Your task to perform on an android device: empty trash in the gmail app Image 0: 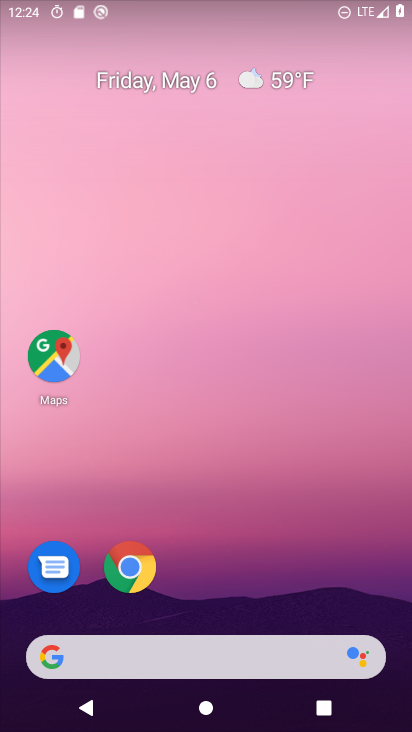
Step 0: drag from (333, 590) to (339, 2)
Your task to perform on an android device: empty trash in the gmail app Image 1: 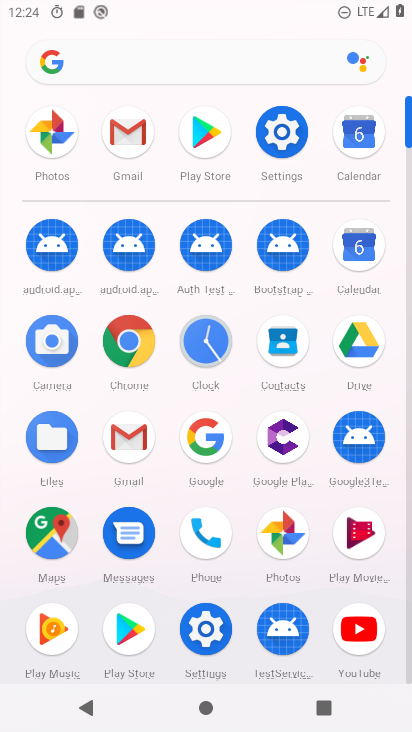
Step 1: click (127, 146)
Your task to perform on an android device: empty trash in the gmail app Image 2: 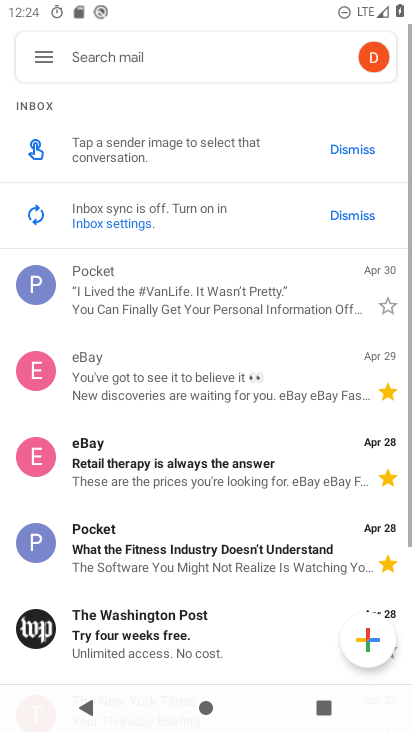
Step 2: click (39, 56)
Your task to perform on an android device: empty trash in the gmail app Image 3: 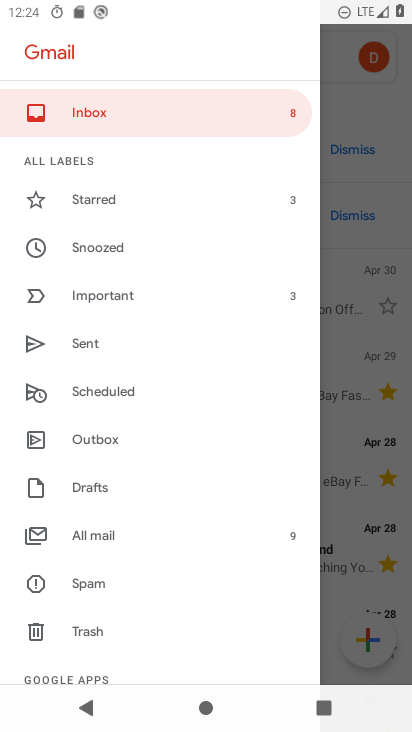
Step 3: click (99, 632)
Your task to perform on an android device: empty trash in the gmail app Image 4: 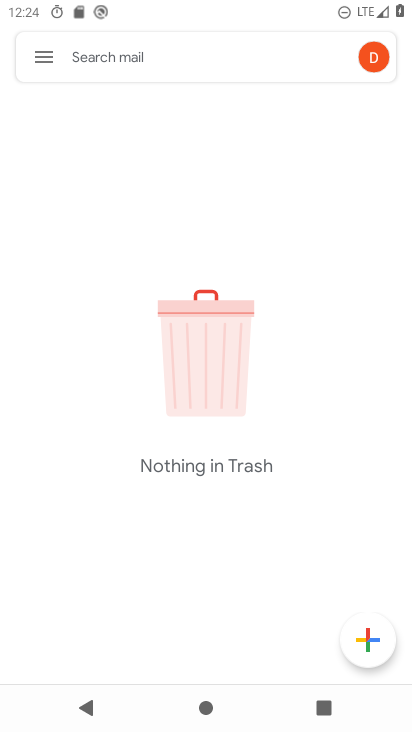
Step 4: task complete